Your task to perform on an android device: Show me the alarms in the clock app Image 0: 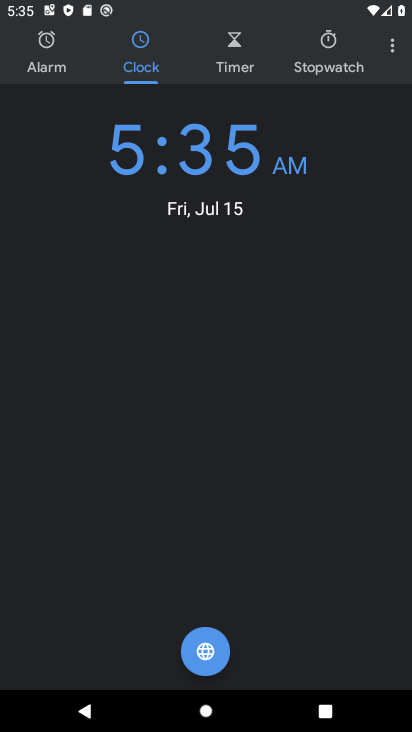
Step 0: press home button
Your task to perform on an android device: Show me the alarms in the clock app Image 1: 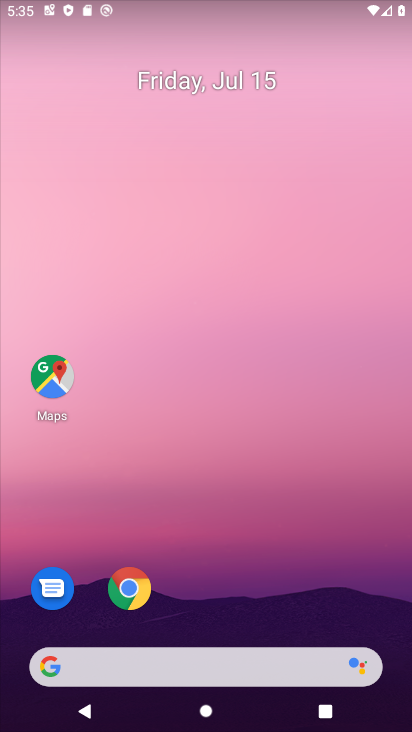
Step 1: drag from (287, 652) to (368, 49)
Your task to perform on an android device: Show me the alarms in the clock app Image 2: 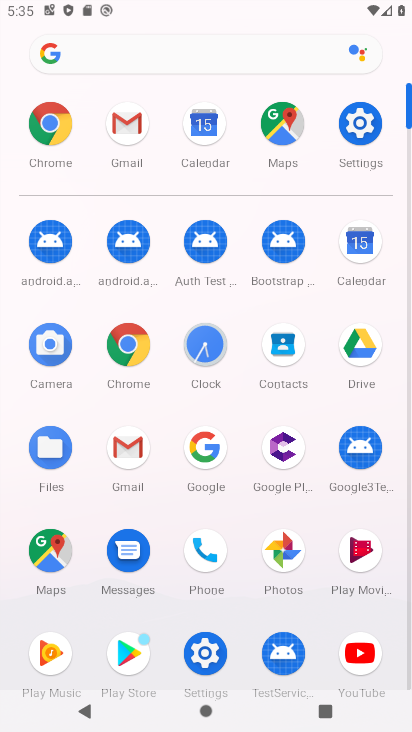
Step 2: click (214, 351)
Your task to perform on an android device: Show me the alarms in the clock app Image 3: 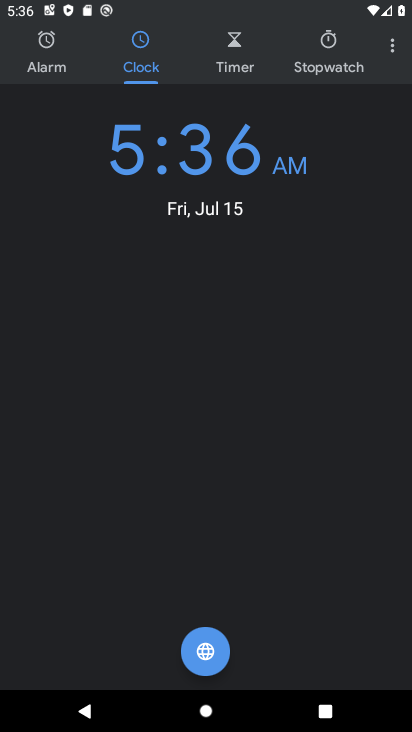
Step 3: click (48, 47)
Your task to perform on an android device: Show me the alarms in the clock app Image 4: 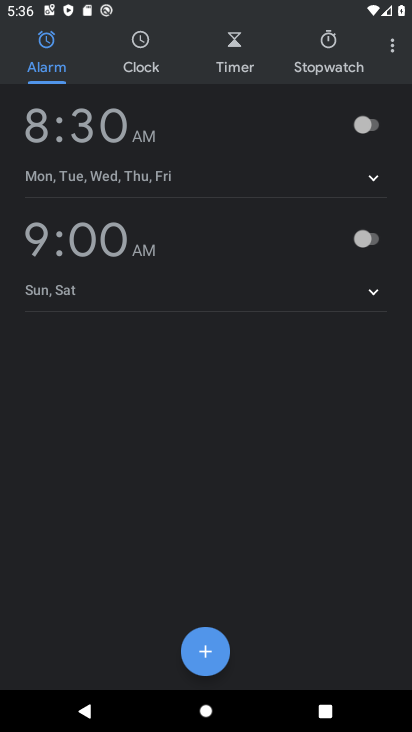
Step 4: task complete